Your task to perform on an android device: Go to Reddit.com Image 0: 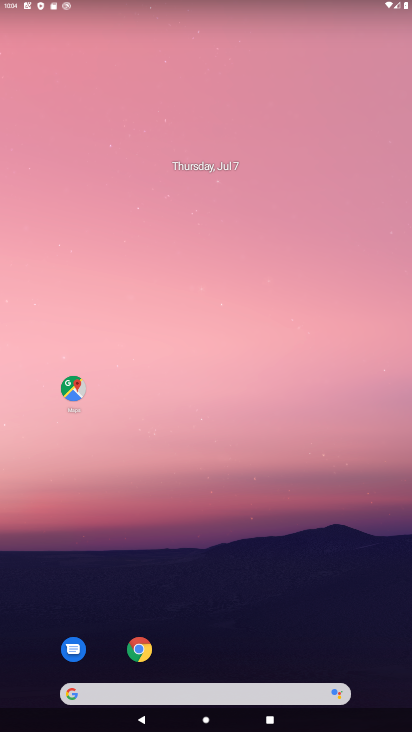
Step 0: click (188, 697)
Your task to perform on an android device: Go to Reddit.com Image 1: 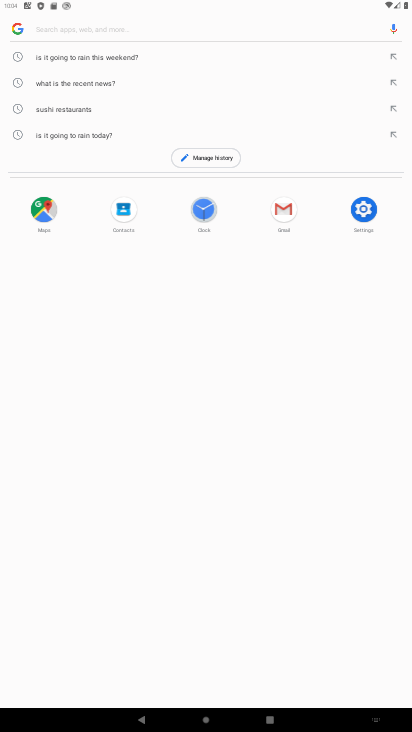
Step 1: type "reddit.com"
Your task to perform on an android device: Go to Reddit.com Image 2: 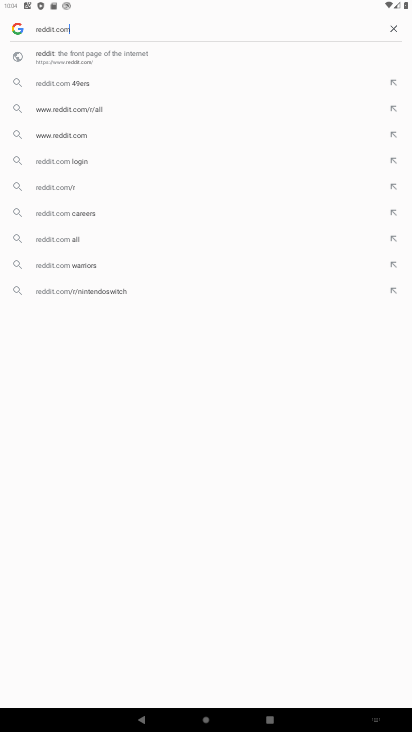
Step 2: press enter
Your task to perform on an android device: Go to Reddit.com Image 3: 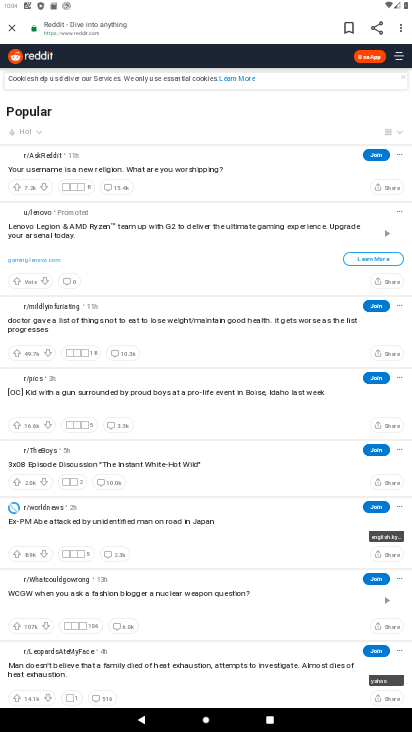
Step 3: task complete